Your task to perform on an android device: turn on javascript in the chrome app Image 0: 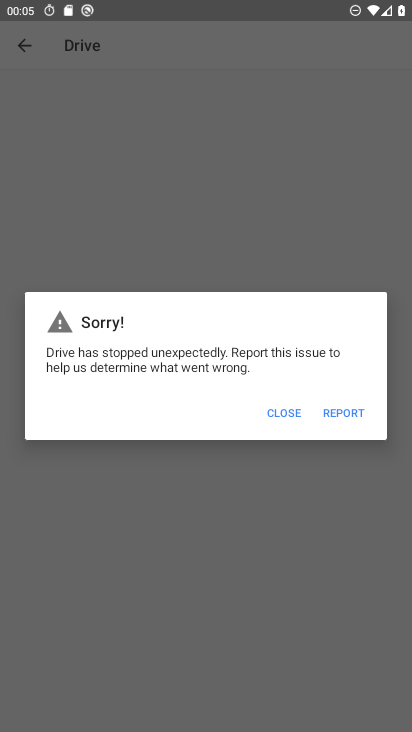
Step 0: press home button
Your task to perform on an android device: turn on javascript in the chrome app Image 1: 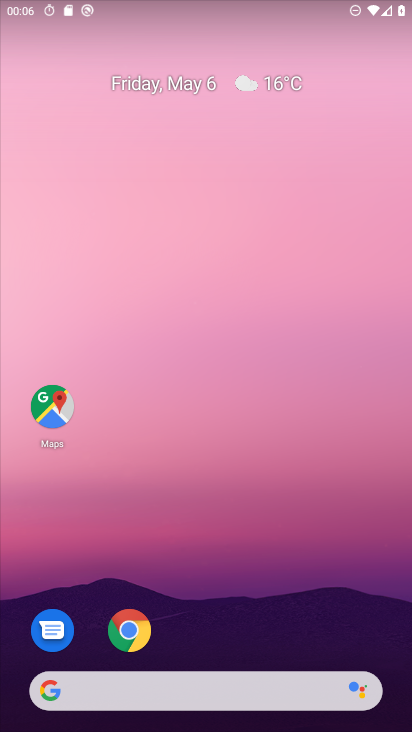
Step 1: click (119, 629)
Your task to perform on an android device: turn on javascript in the chrome app Image 2: 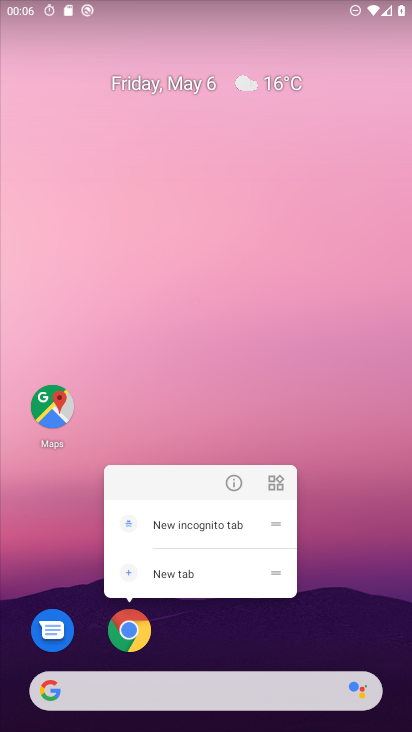
Step 2: click (144, 623)
Your task to perform on an android device: turn on javascript in the chrome app Image 3: 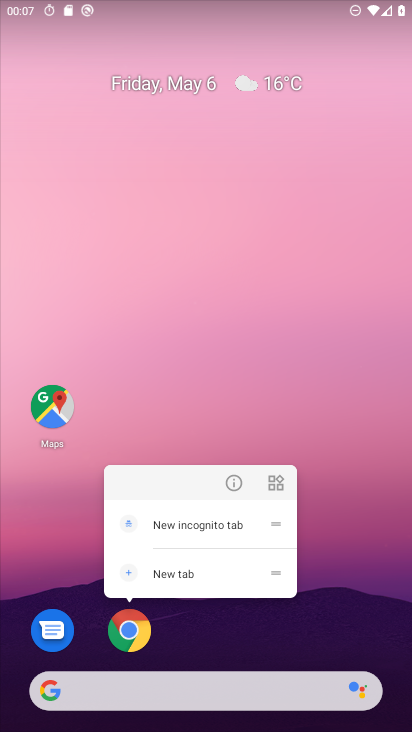
Step 3: click (140, 627)
Your task to perform on an android device: turn on javascript in the chrome app Image 4: 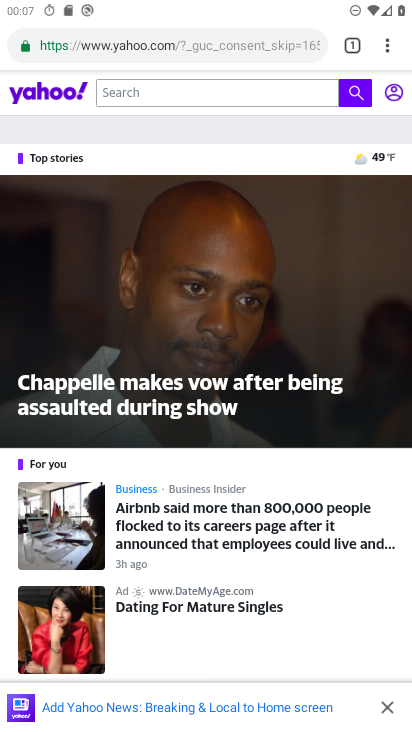
Step 4: drag from (391, 38) to (240, 596)
Your task to perform on an android device: turn on javascript in the chrome app Image 5: 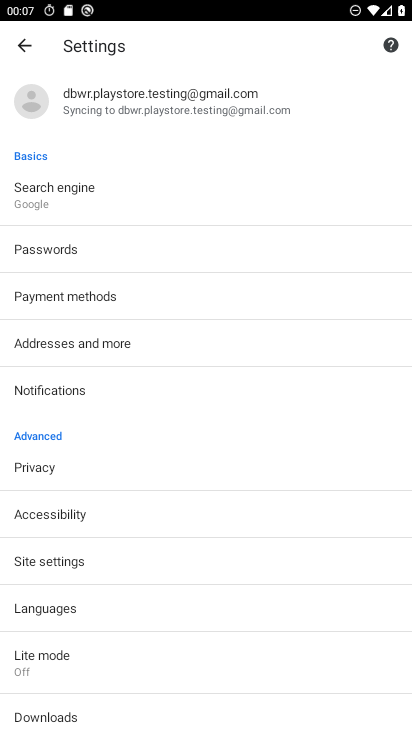
Step 5: click (122, 565)
Your task to perform on an android device: turn on javascript in the chrome app Image 6: 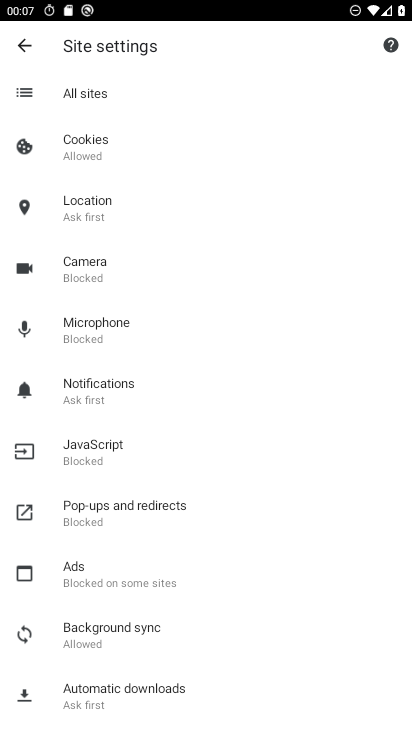
Step 6: click (136, 449)
Your task to perform on an android device: turn on javascript in the chrome app Image 7: 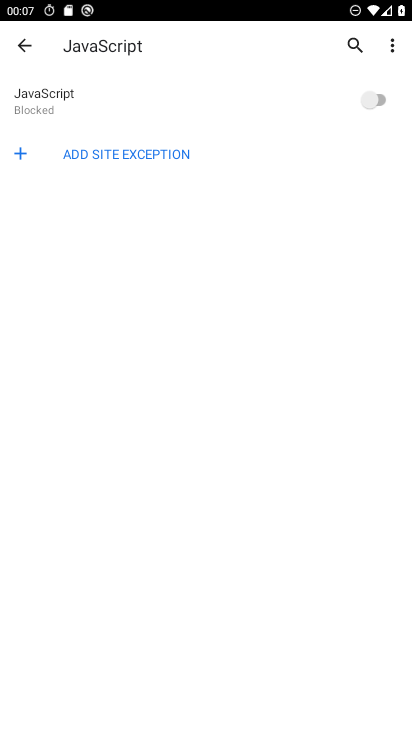
Step 7: click (365, 94)
Your task to perform on an android device: turn on javascript in the chrome app Image 8: 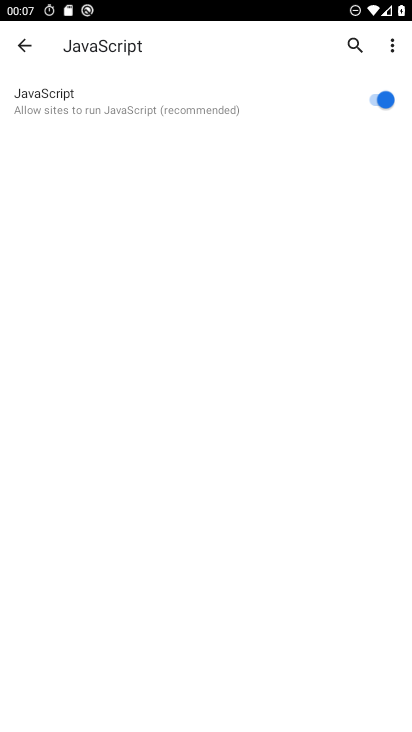
Step 8: task complete